Your task to perform on an android device: Do I have any events this weekend? Image 0: 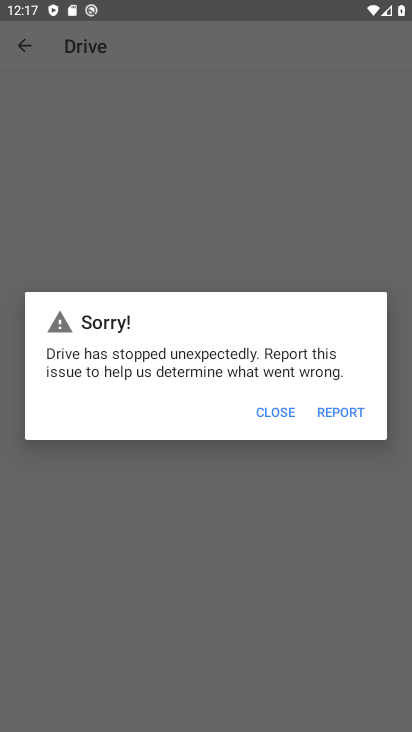
Step 0: press home button
Your task to perform on an android device: Do I have any events this weekend? Image 1: 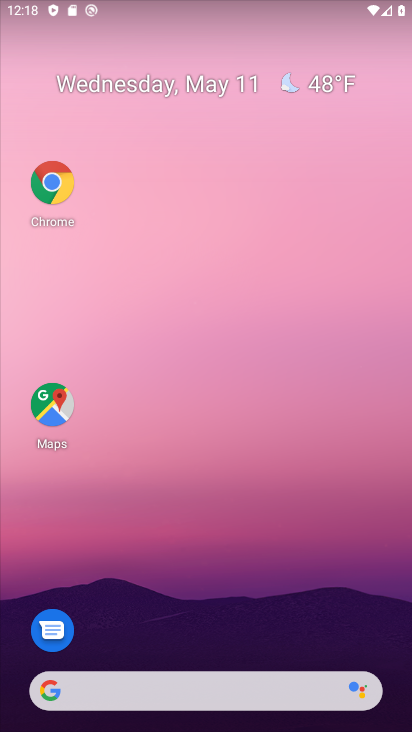
Step 1: drag from (207, 666) to (177, 95)
Your task to perform on an android device: Do I have any events this weekend? Image 2: 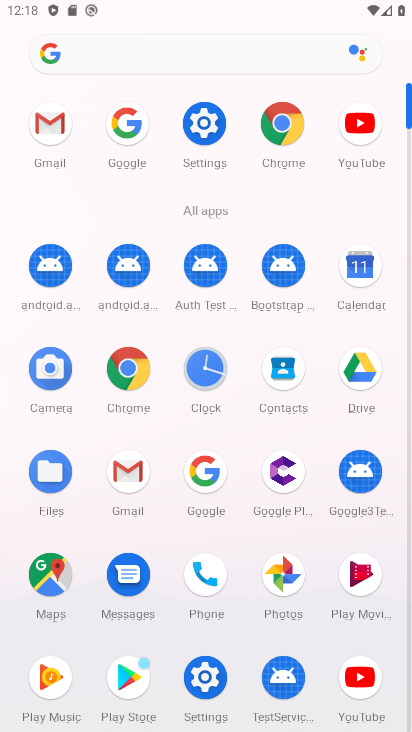
Step 2: click (358, 269)
Your task to perform on an android device: Do I have any events this weekend? Image 3: 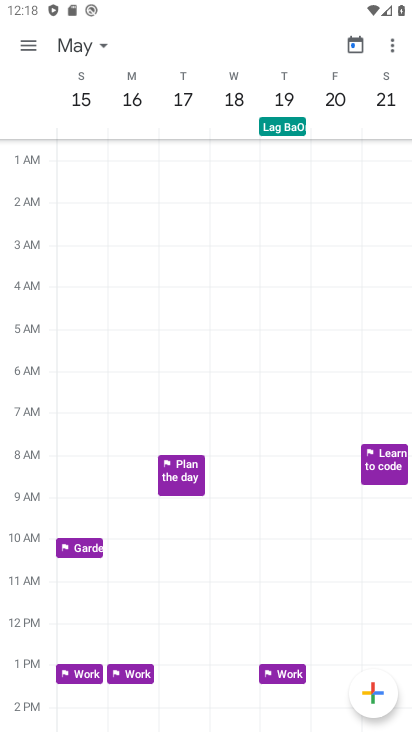
Step 3: task complete